Your task to perform on an android device: Open network settings Image 0: 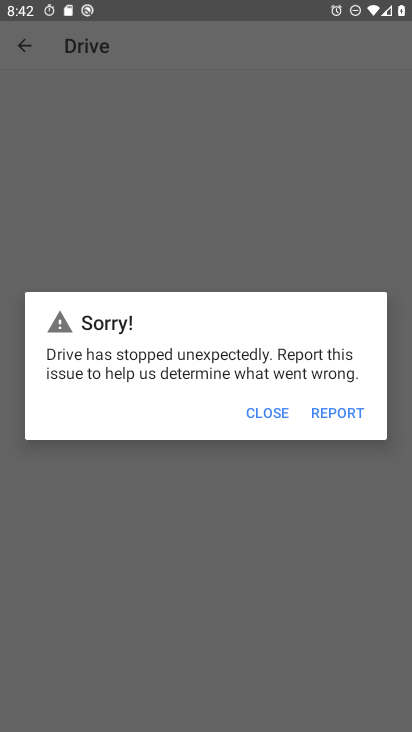
Step 0: press home button
Your task to perform on an android device: Open network settings Image 1: 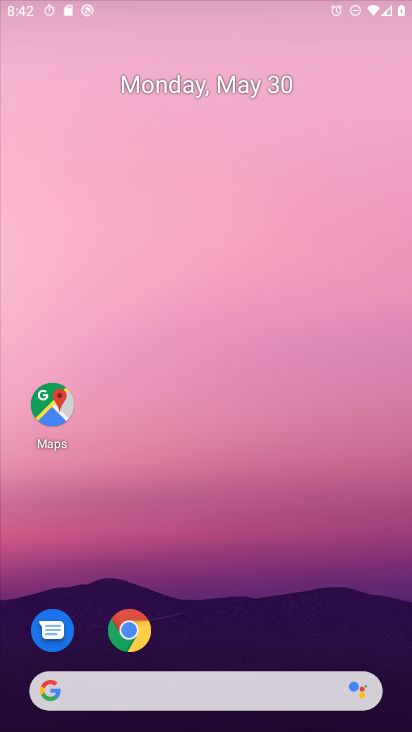
Step 1: drag from (302, 626) to (263, 73)
Your task to perform on an android device: Open network settings Image 2: 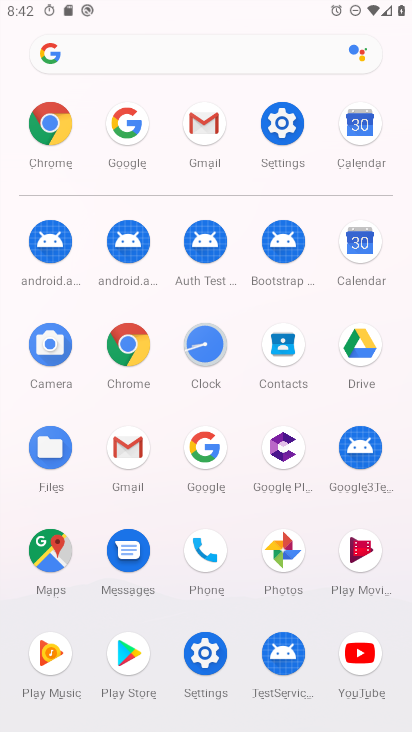
Step 2: click (287, 133)
Your task to perform on an android device: Open network settings Image 3: 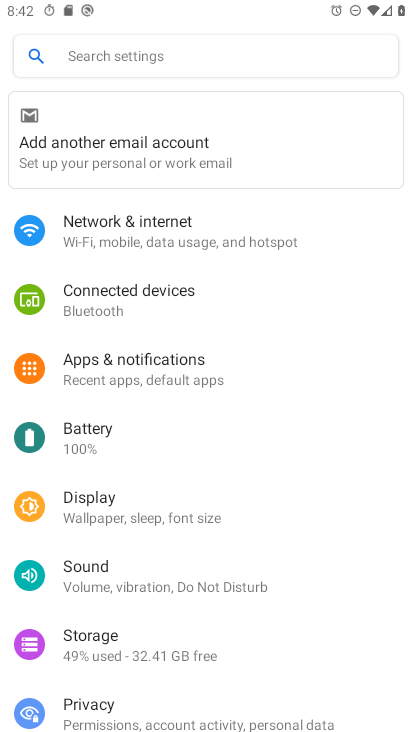
Step 3: click (93, 231)
Your task to perform on an android device: Open network settings Image 4: 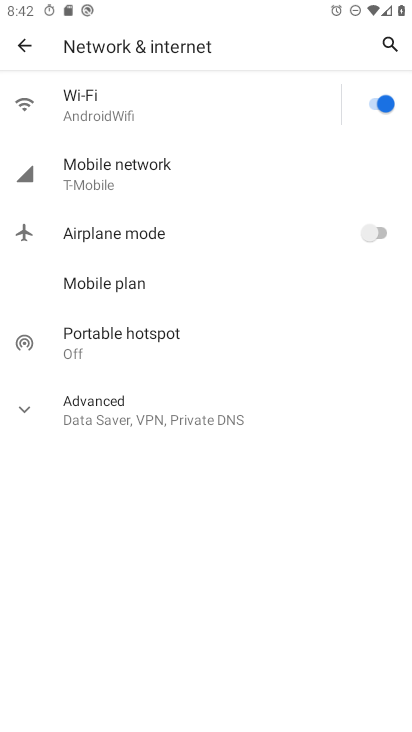
Step 4: task complete